Your task to perform on an android device: What's the weather going to be this weekend? Image 0: 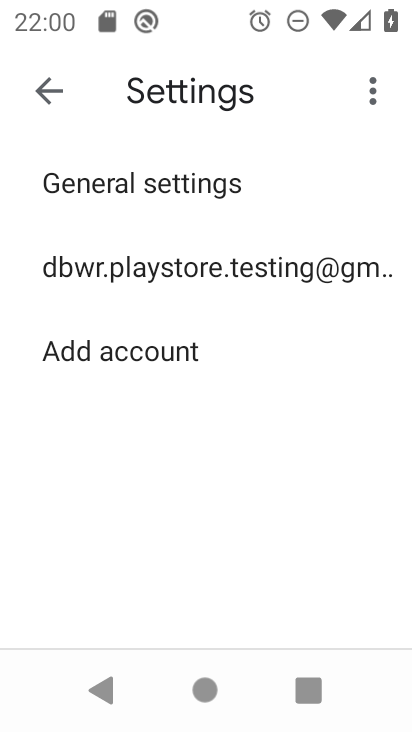
Step 0: press home button
Your task to perform on an android device: What's the weather going to be this weekend? Image 1: 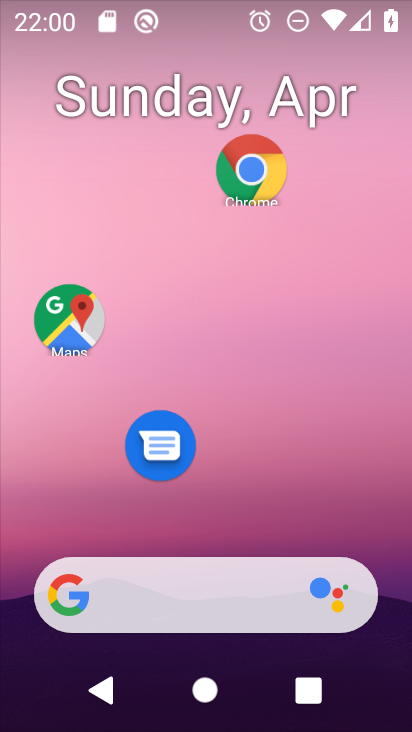
Step 1: drag from (275, 484) to (311, 119)
Your task to perform on an android device: What's the weather going to be this weekend? Image 2: 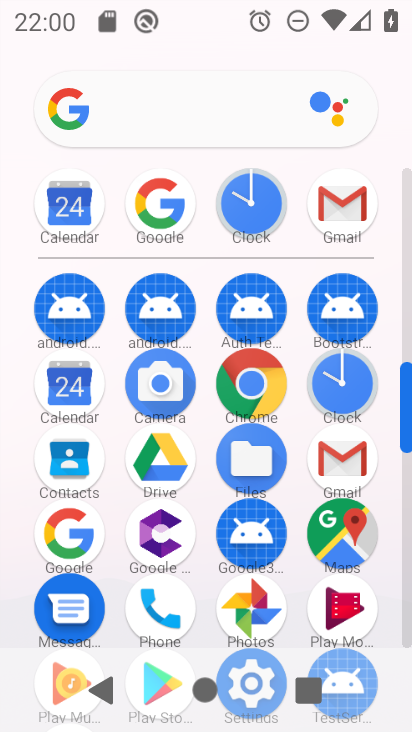
Step 2: click (77, 540)
Your task to perform on an android device: What's the weather going to be this weekend? Image 3: 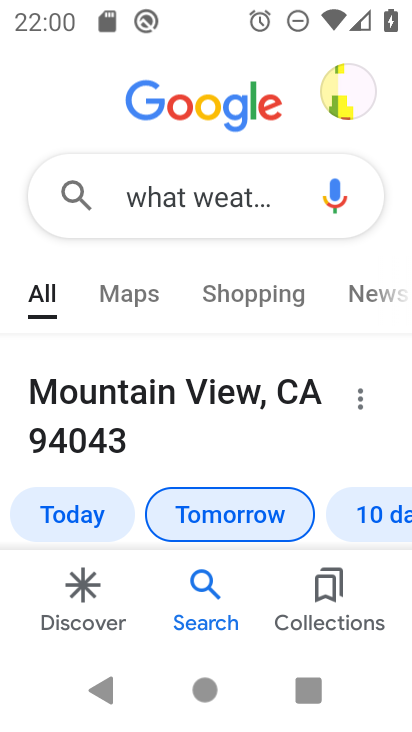
Step 3: click (271, 191)
Your task to perform on an android device: What's the weather going to be this weekend? Image 4: 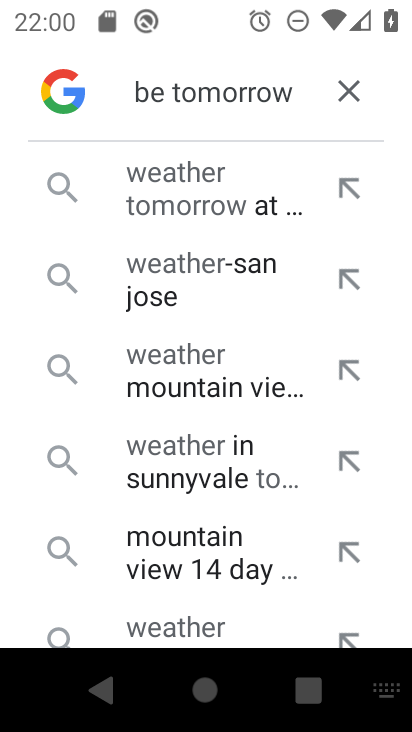
Step 4: click (354, 93)
Your task to perform on an android device: What's the weather going to be this weekend? Image 5: 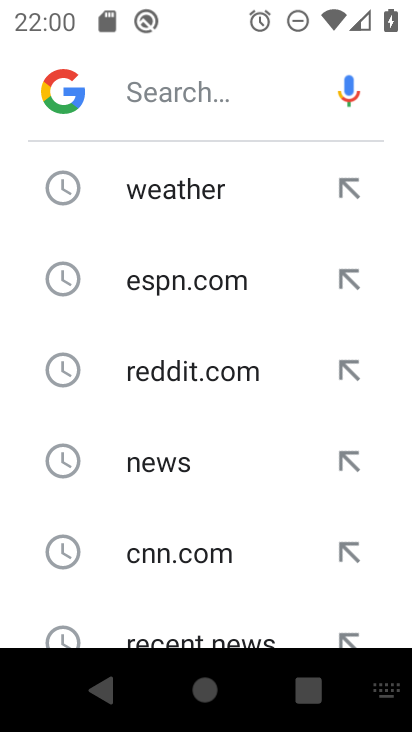
Step 5: type "whats the weather to be going this weekend"
Your task to perform on an android device: What's the weather going to be this weekend? Image 6: 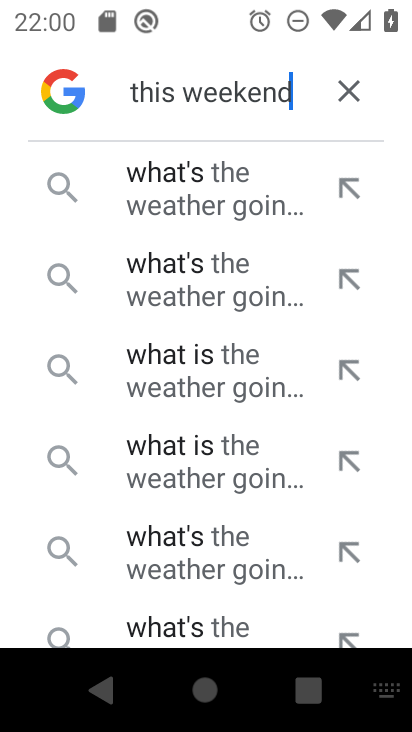
Step 6: click (213, 191)
Your task to perform on an android device: What's the weather going to be this weekend? Image 7: 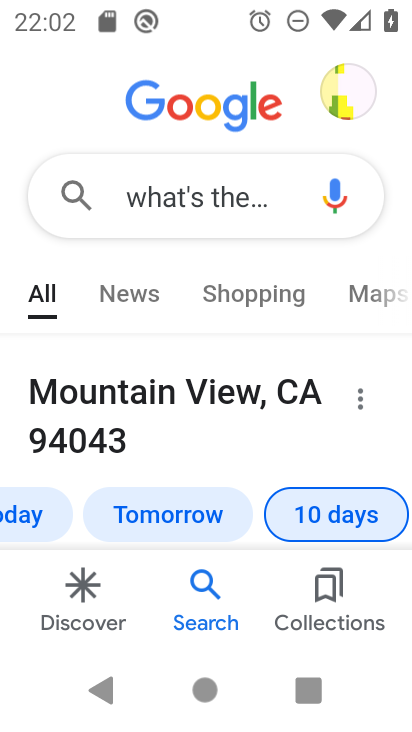
Step 7: task complete